Your task to perform on an android device: open app "YouTube Kids" Image 0: 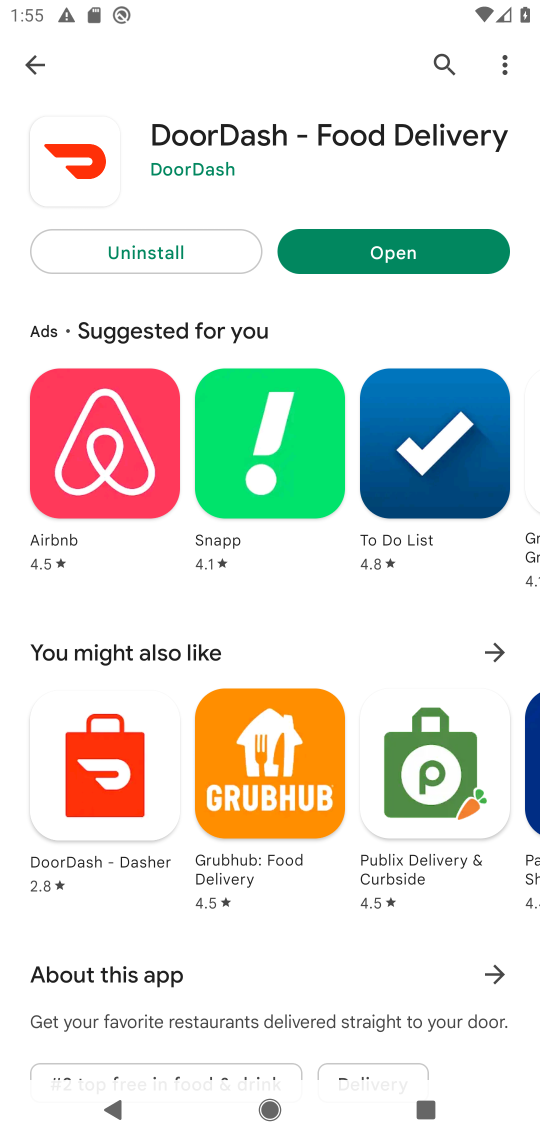
Step 0: press home button
Your task to perform on an android device: open app "YouTube Kids" Image 1: 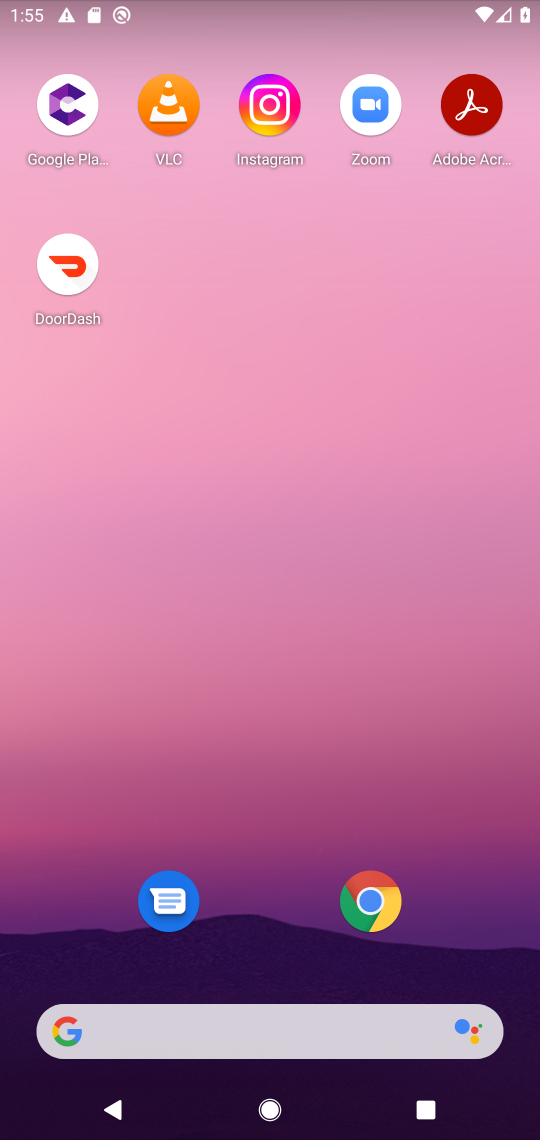
Step 1: drag from (371, 826) to (360, 73)
Your task to perform on an android device: open app "YouTube Kids" Image 2: 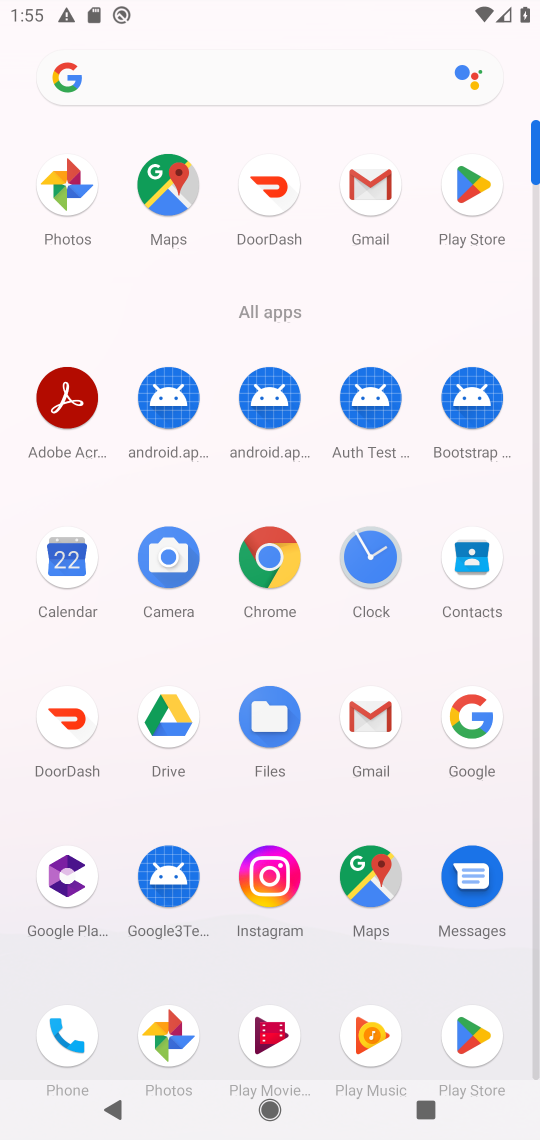
Step 2: click (474, 1040)
Your task to perform on an android device: open app "YouTube Kids" Image 3: 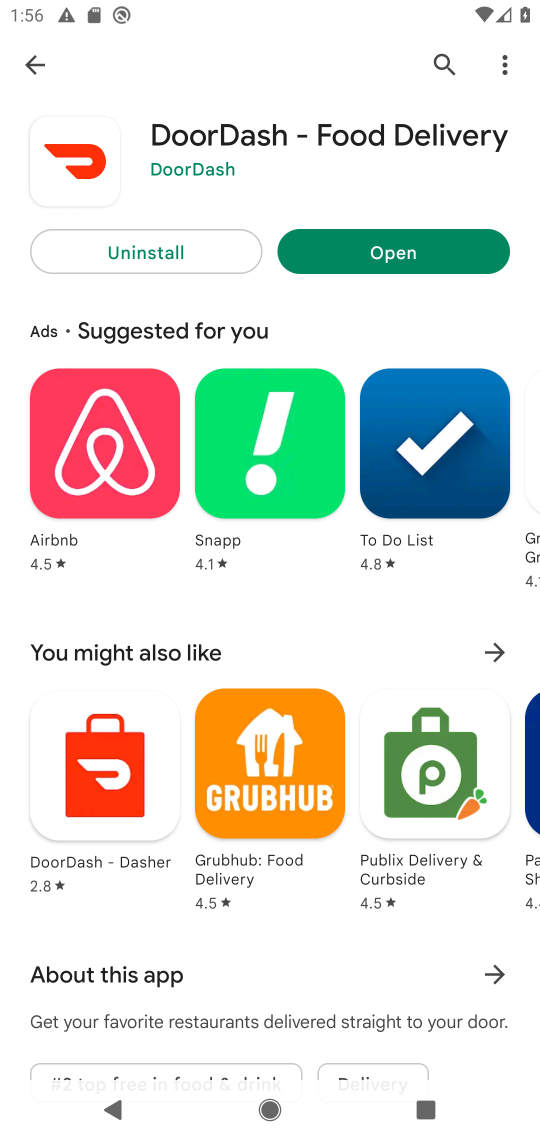
Step 3: click (436, 60)
Your task to perform on an android device: open app "YouTube Kids" Image 4: 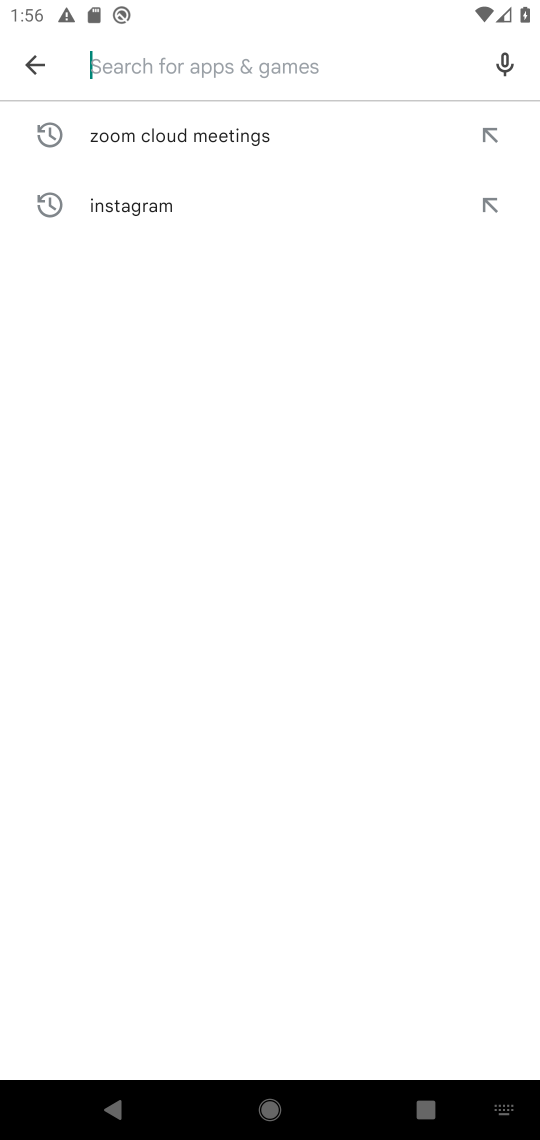
Step 4: type "YouTube Kids"
Your task to perform on an android device: open app "YouTube Kids" Image 5: 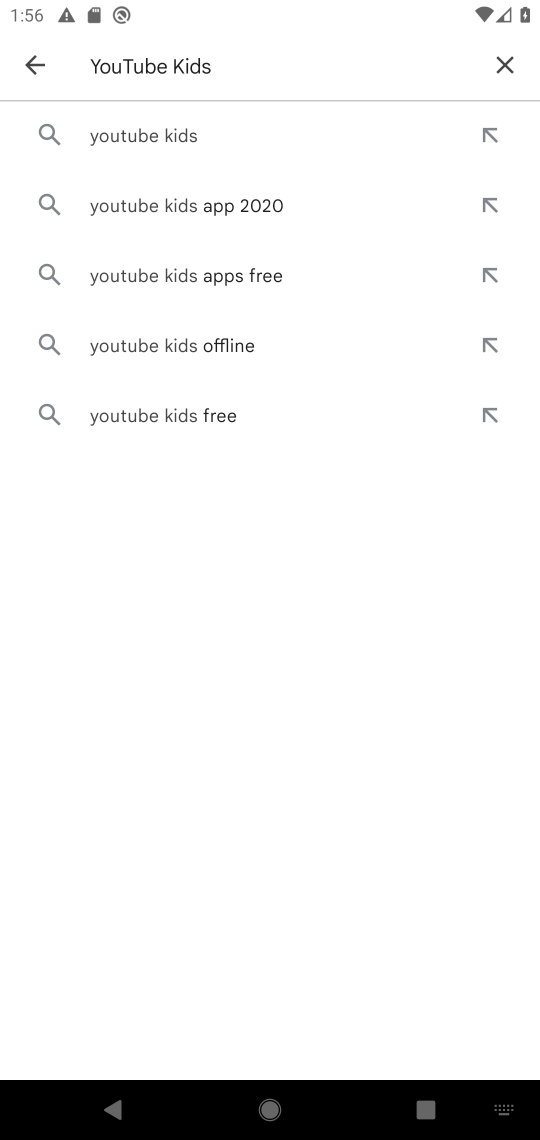
Step 5: click (147, 130)
Your task to perform on an android device: open app "YouTube Kids" Image 6: 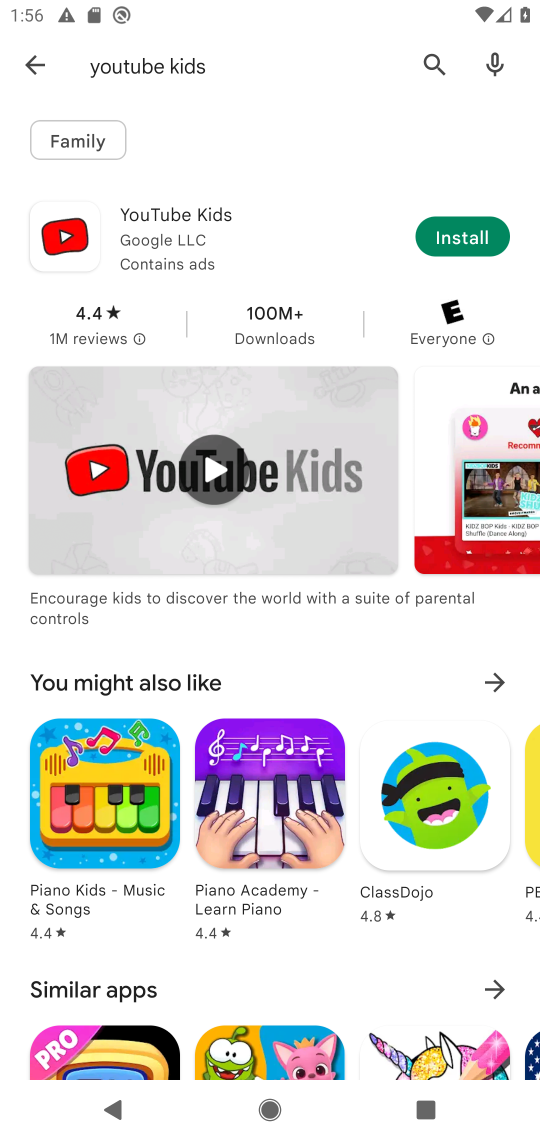
Step 6: click (142, 232)
Your task to perform on an android device: open app "YouTube Kids" Image 7: 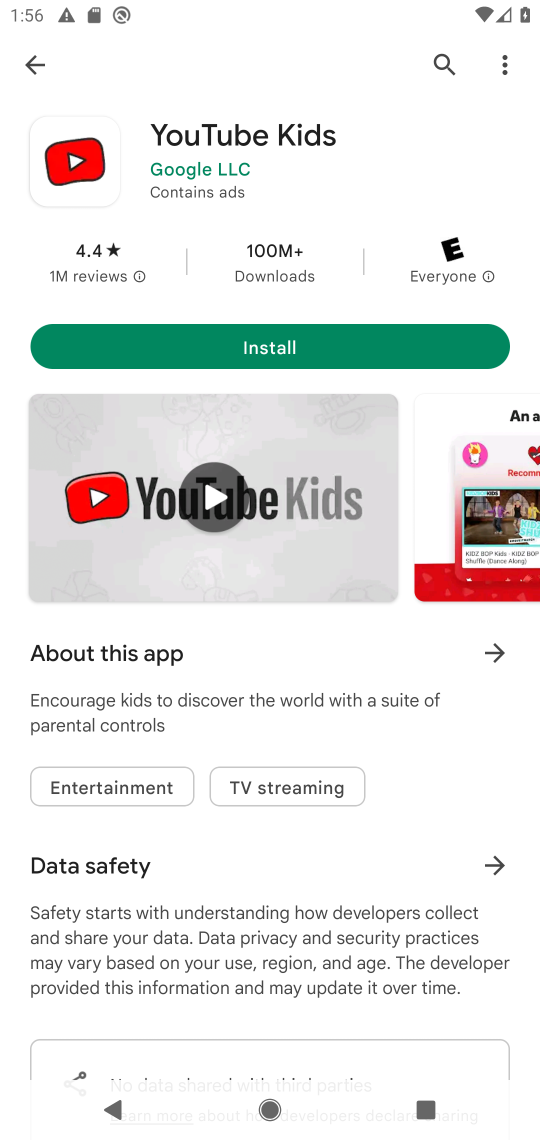
Step 7: task complete